Your task to perform on an android device: manage bookmarks in the chrome app Image 0: 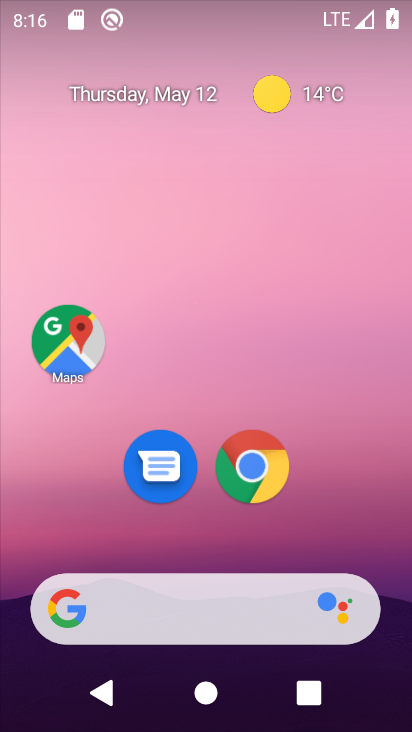
Step 0: click (250, 461)
Your task to perform on an android device: manage bookmarks in the chrome app Image 1: 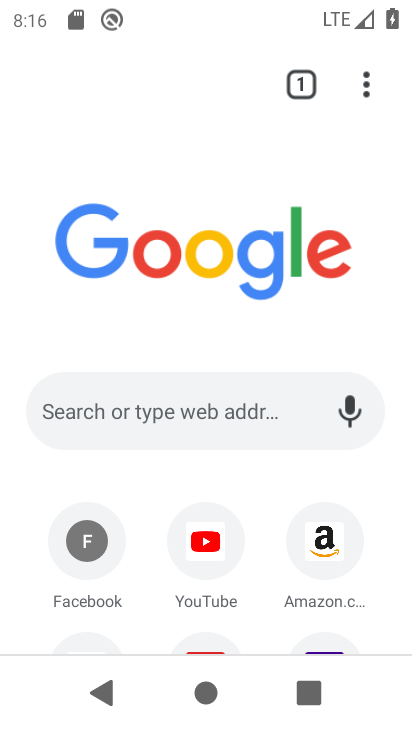
Step 1: click (365, 87)
Your task to perform on an android device: manage bookmarks in the chrome app Image 2: 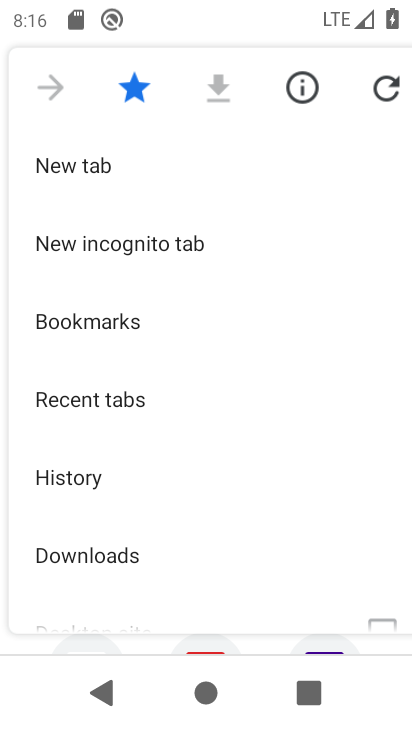
Step 2: click (151, 316)
Your task to perform on an android device: manage bookmarks in the chrome app Image 3: 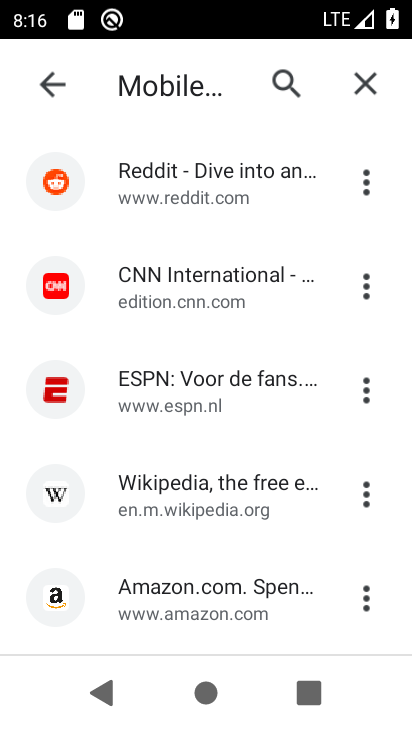
Step 3: click (364, 494)
Your task to perform on an android device: manage bookmarks in the chrome app Image 4: 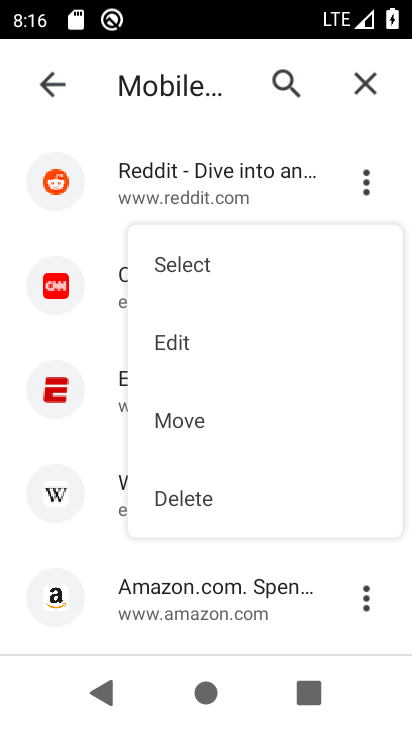
Step 4: click (227, 495)
Your task to perform on an android device: manage bookmarks in the chrome app Image 5: 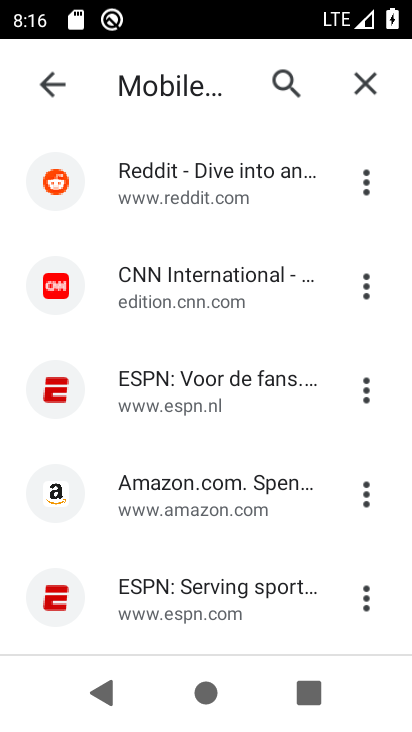
Step 5: task complete